Your task to perform on an android device: Go to Reddit.com Image 0: 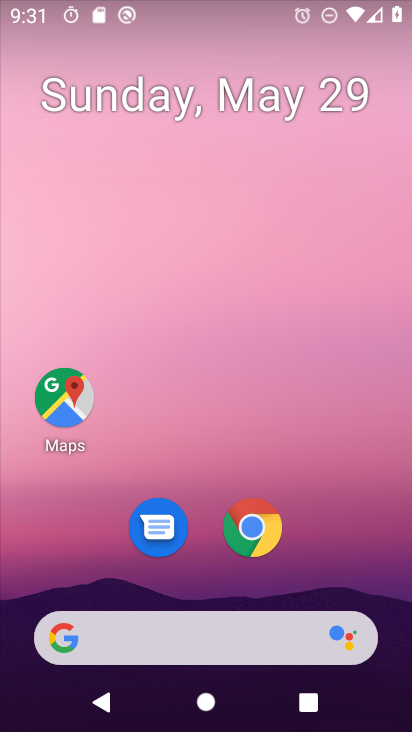
Step 0: drag from (400, 619) to (190, 28)
Your task to perform on an android device: Go to Reddit.com Image 1: 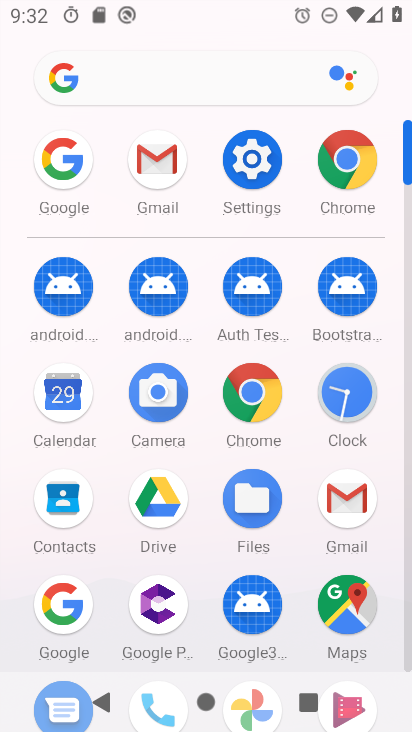
Step 1: click (74, 596)
Your task to perform on an android device: Go to Reddit.com Image 2: 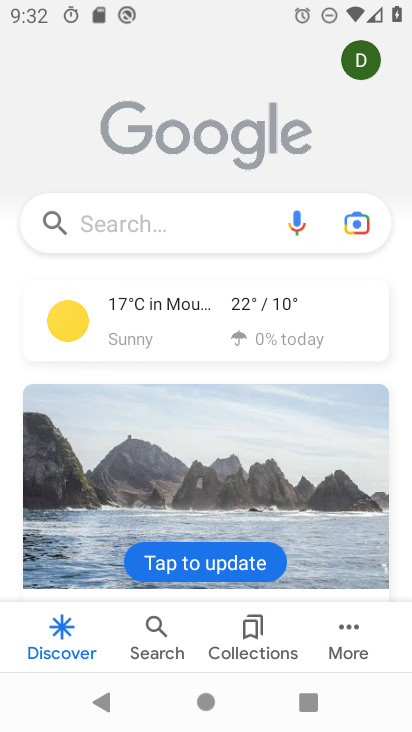
Step 2: click (216, 237)
Your task to perform on an android device: Go to Reddit.com Image 3: 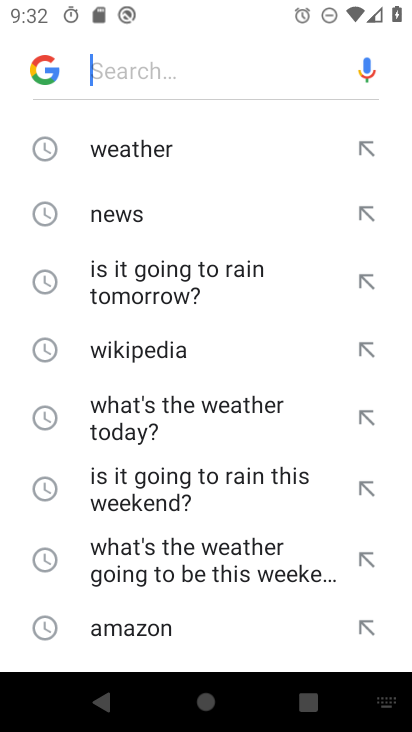
Step 3: drag from (168, 565) to (157, 107)
Your task to perform on an android device: Go to Reddit.com Image 4: 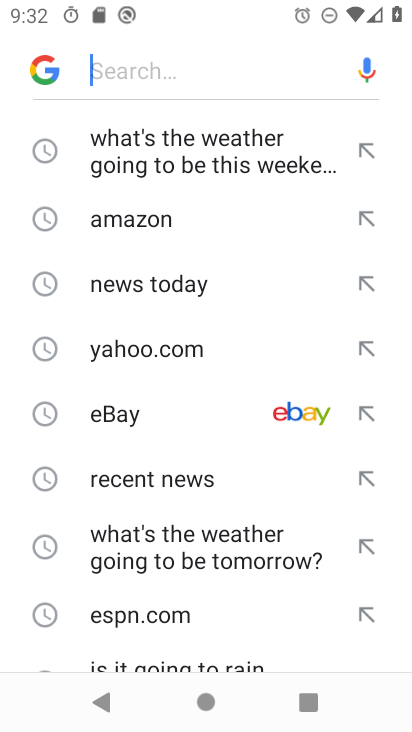
Step 4: drag from (156, 568) to (169, 158)
Your task to perform on an android device: Go to Reddit.com Image 5: 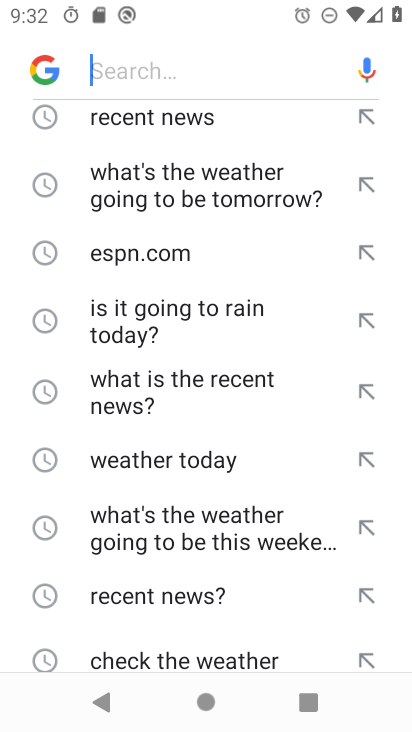
Step 5: drag from (159, 603) to (200, 125)
Your task to perform on an android device: Go to Reddit.com Image 6: 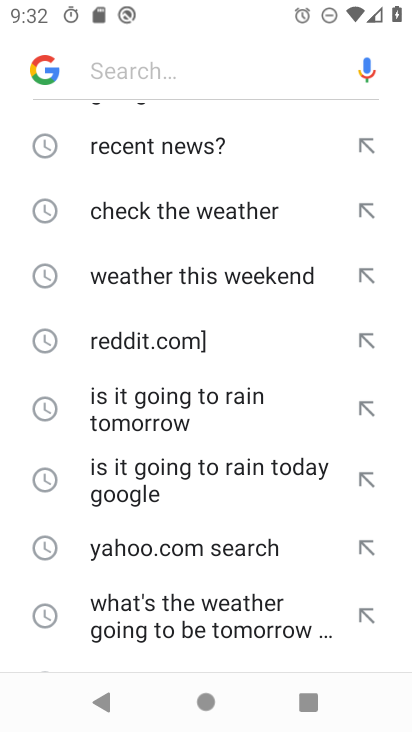
Step 6: drag from (187, 602) to (226, 119)
Your task to perform on an android device: Go to Reddit.com Image 7: 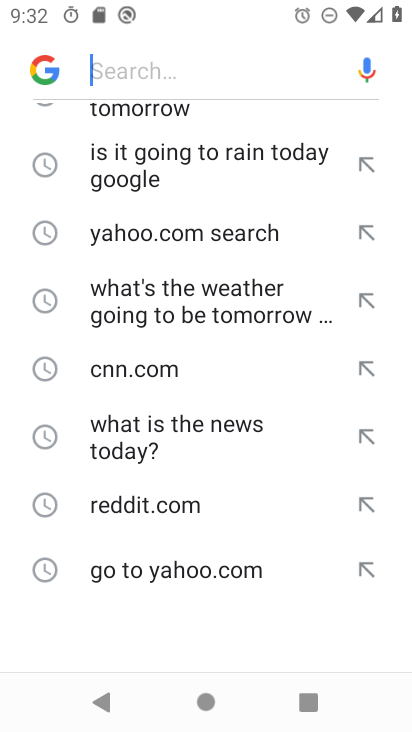
Step 7: click (181, 519)
Your task to perform on an android device: Go to Reddit.com Image 8: 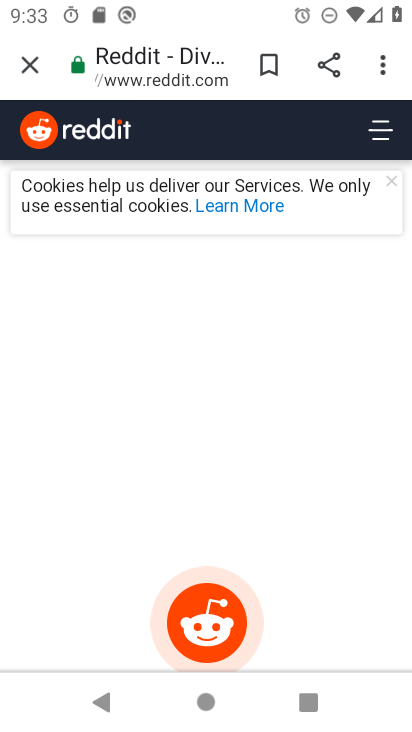
Step 8: task complete